Your task to perform on an android device: set default search engine in the chrome app Image 0: 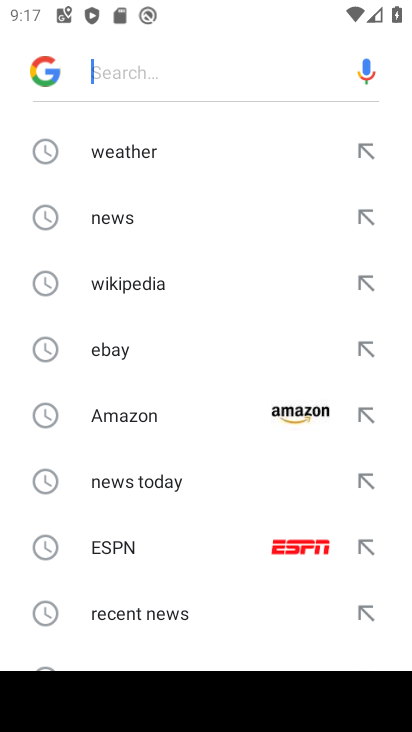
Step 0: press home button
Your task to perform on an android device: set default search engine in the chrome app Image 1: 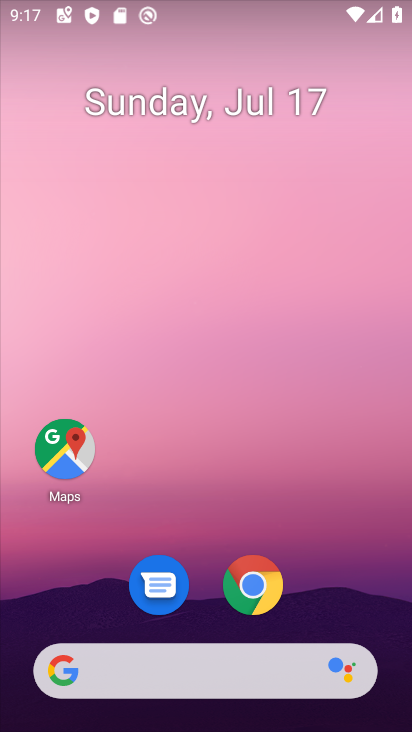
Step 1: click (246, 585)
Your task to perform on an android device: set default search engine in the chrome app Image 2: 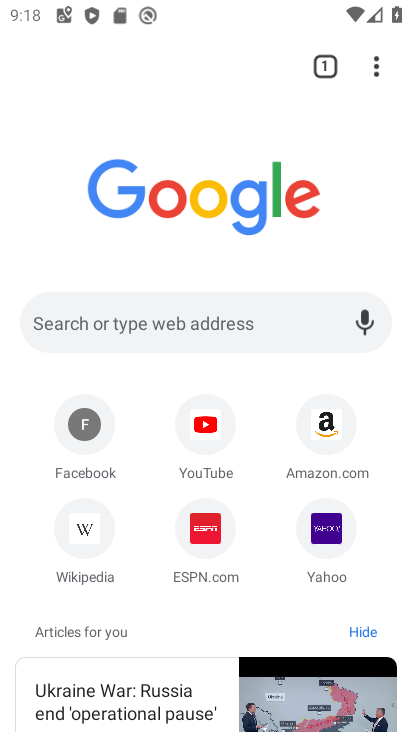
Step 2: click (374, 65)
Your task to perform on an android device: set default search engine in the chrome app Image 3: 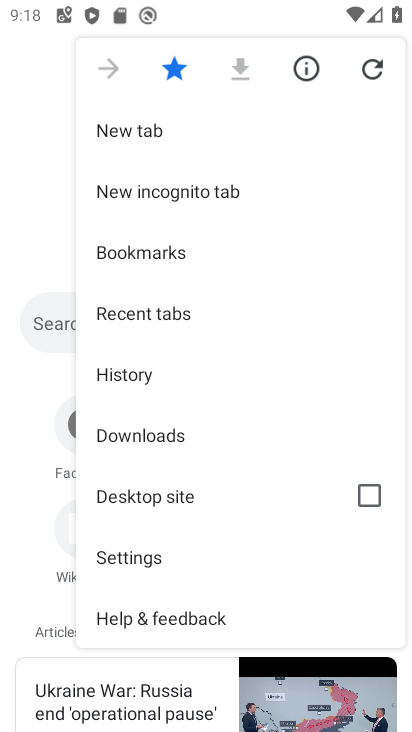
Step 3: click (147, 556)
Your task to perform on an android device: set default search engine in the chrome app Image 4: 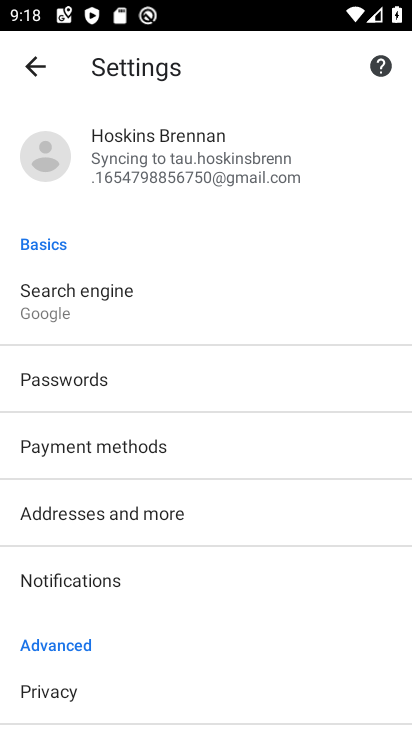
Step 4: click (122, 320)
Your task to perform on an android device: set default search engine in the chrome app Image 5: 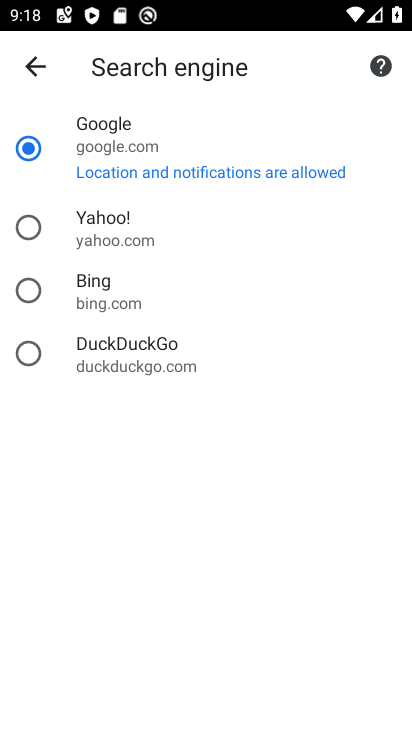
Step 5: task complete